Your task to perform on an android device: check battery use Image 0: 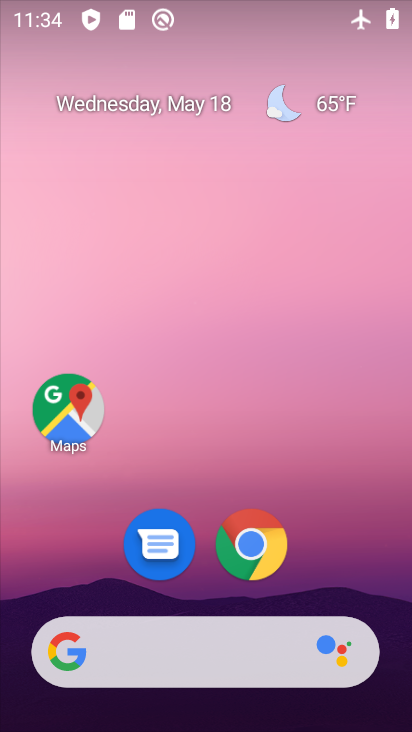
Step 0: drag from (379, 564) to (357, 136)
Your task to perform on an android device: check battery use Image 1: 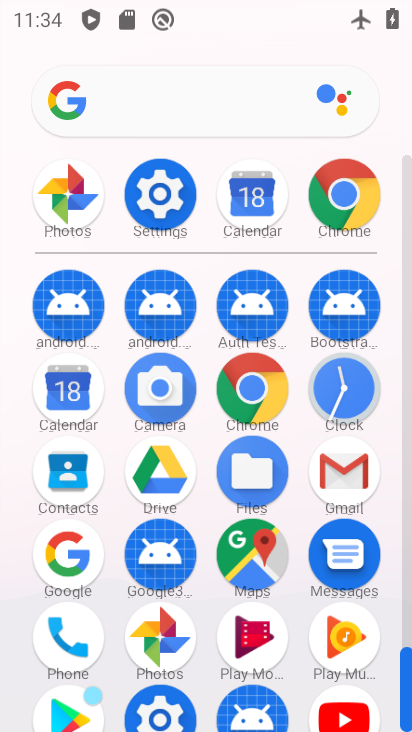
Step 1: click (167, 219)
Your task to perform on an android device: check battery use Image 2: 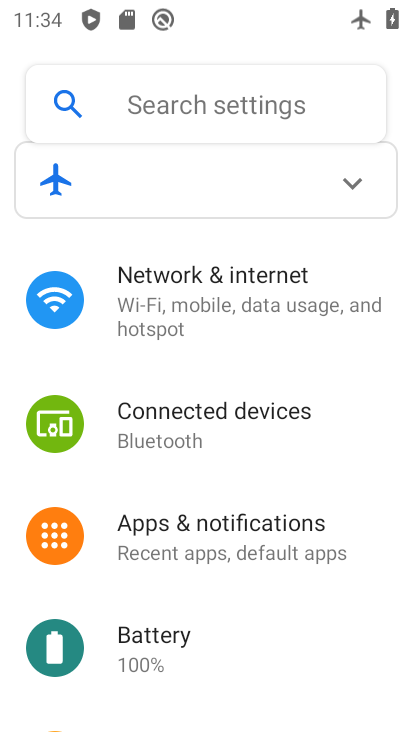
Step 2: drag from (336, 615) to (347, 422)
Your task to perform on an android device: check battery use Image 3: 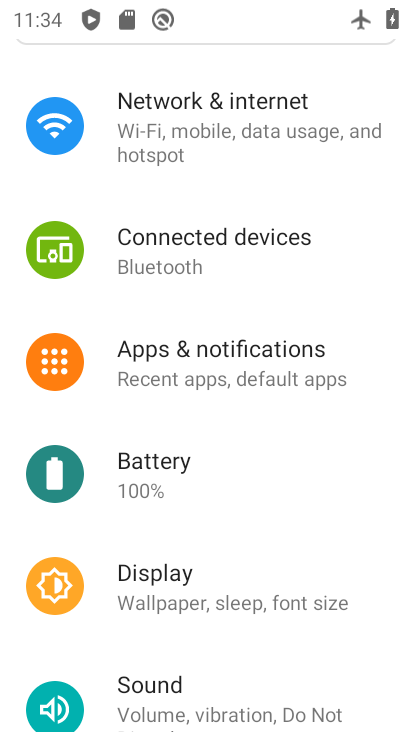
Step 3: click (165, 491)
Your task to perform on an android device: check battery use Image 4: 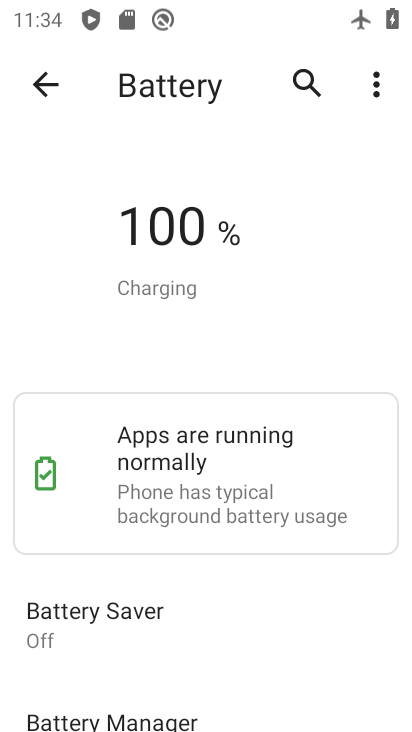
Step 4: click (373, 95)
Your task to perform on an android device: check battery use Image 5: 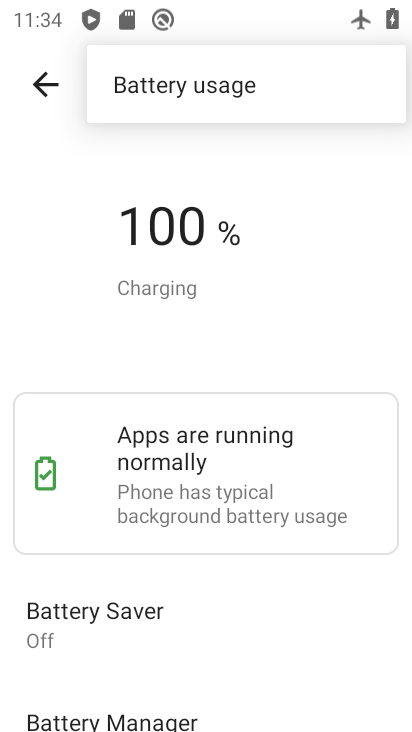
Step 5: click (339, 90)
Your task to perform on an android device: check battery use Image 6: 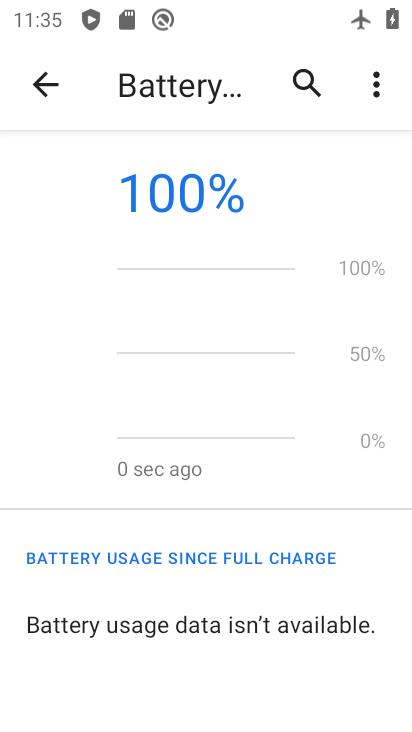
Step 6: task complete